Your task to perform on an android device: turn smart compose on in the gmail app Image 0: 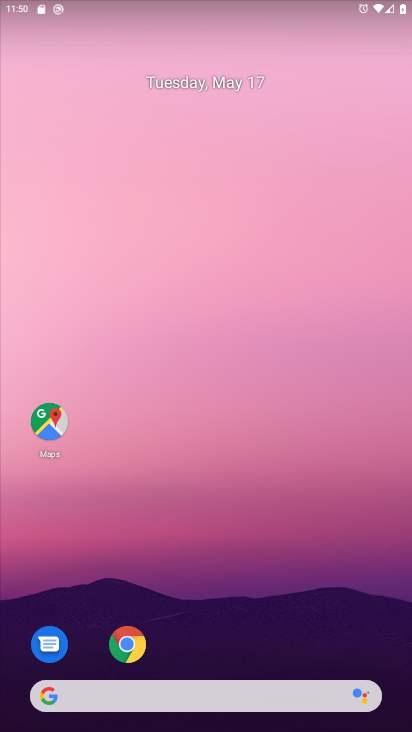
Step 0: drag from (213, 645) to (243, 29)
Your task to perform on an android device: turn smart compose on in the gmail app Image 1: 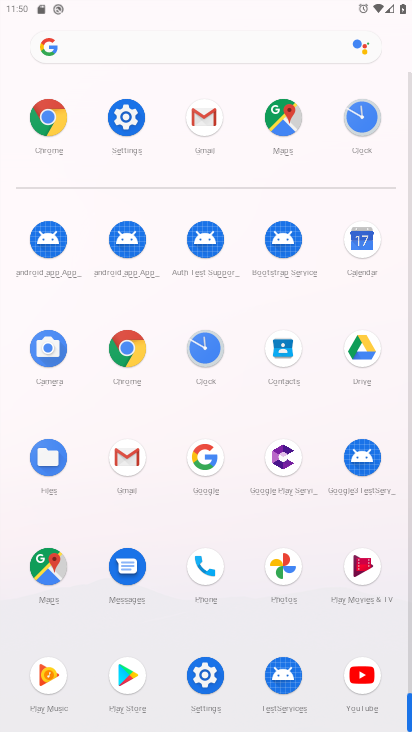
Step 1: click (122, 451)
Your task to perform on an android device: turn smart compose on in the gmail app Image 2: 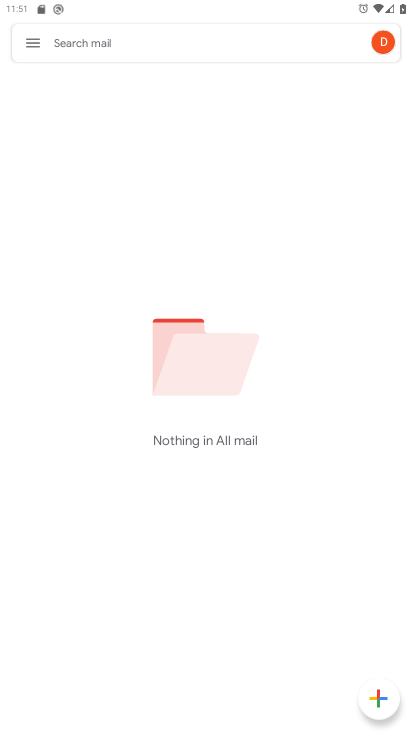
Step 2: press home button
Your task to perform on an android device: turn smart compose on in the gmail app Image 3: 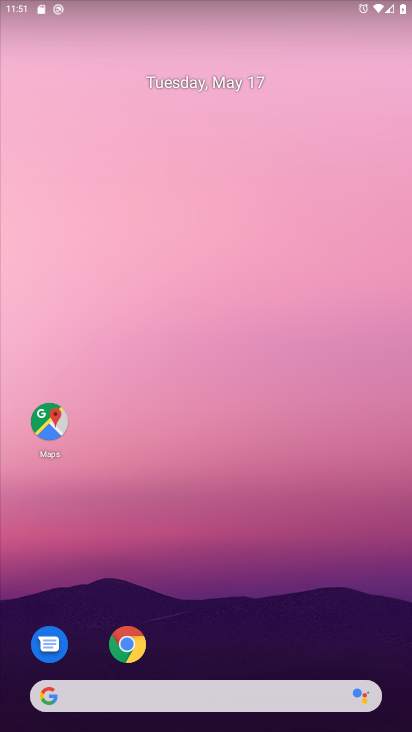
Step 3: drag from (217, 653) to (253, 74)
Your task to perform on an android device: turn smart compose on in the gmail app Image 4: 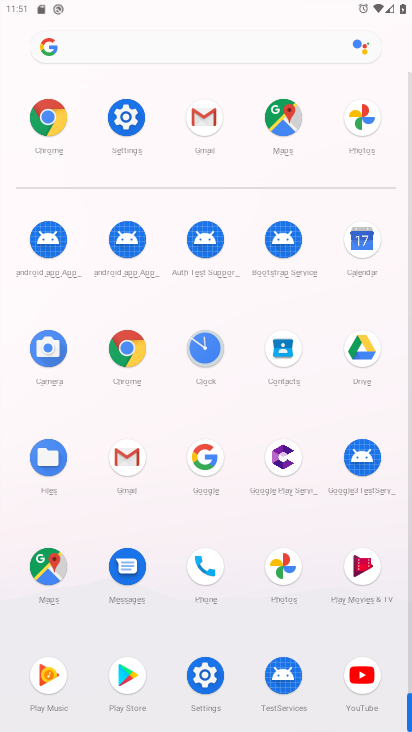
Step 4: click (122, 444)
Your task to perform on an android device: turn smart compose on in the gmail app Image 5: 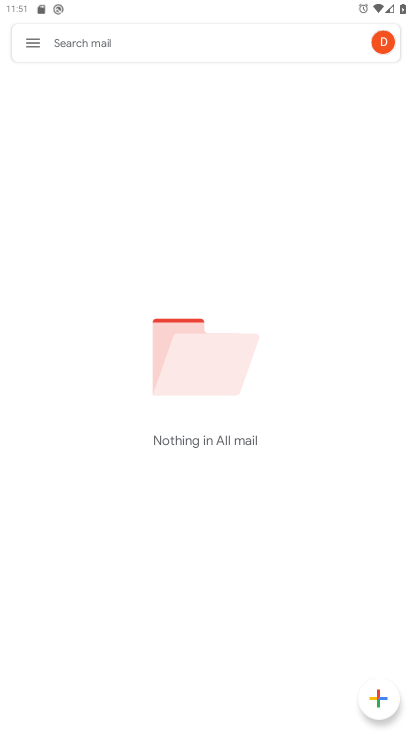
Step 5: click (33, 43)
Your task to perform on an android device: turn smart compose on in the gmail app Image 6: 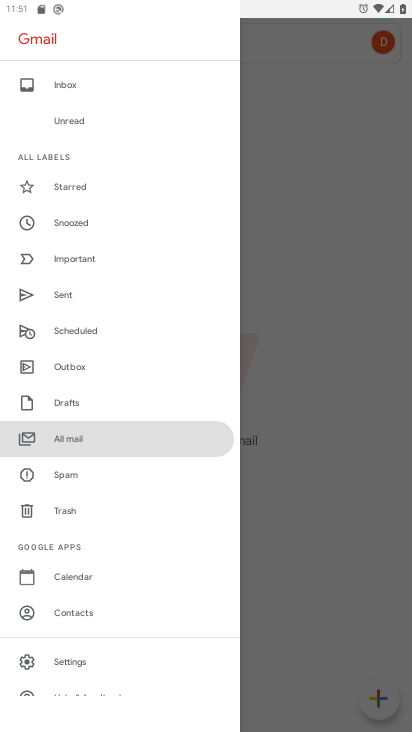
Step 6: click (90, 656)
Your task to perform on an android device: turn smart compose on in the gmail app Image 7: 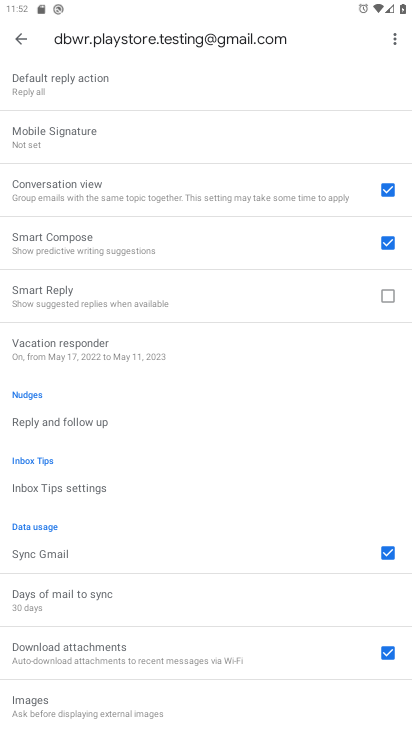
Step 7: drag from (208, 677) to (210, 505)
Your task to perform on an android device: turn smart compose on in the gmail app Image 8: 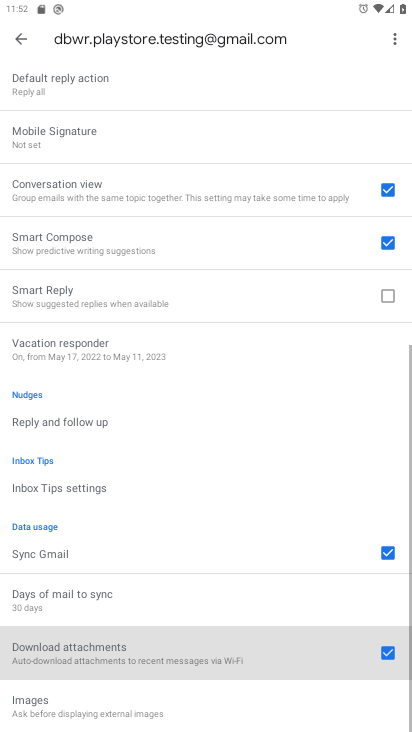
Step 8: click (210, 378)
Your task to perform on an android device: turn smart compose on in the gmail app Image 9: 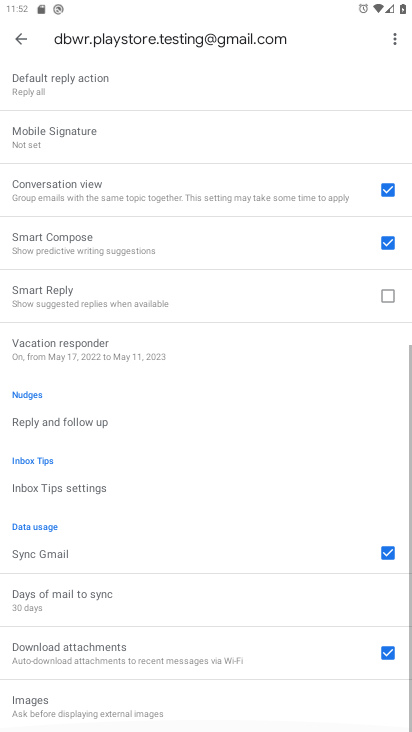
Step 9: click (207, 257)
Your task to perform on an android device: turn smart compose on in the gmail app Image 10: 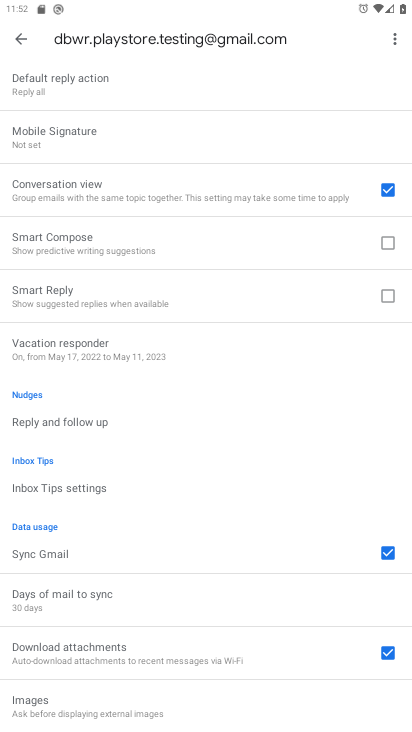
Step 10: click (386, 240)
Your task to perform on an android device: turn smart compose on in the gmail app Image 11: 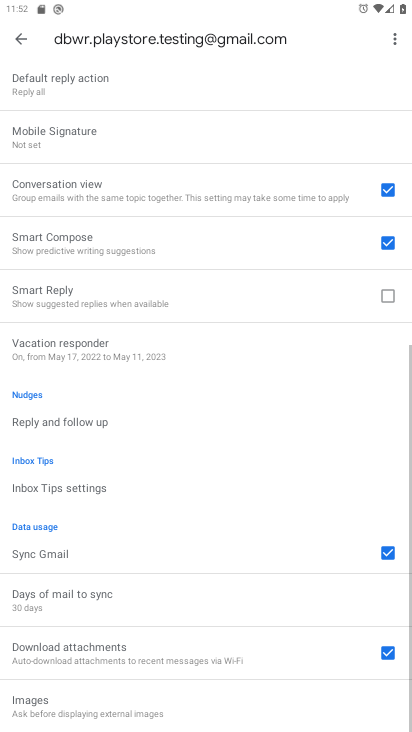
Step 11: task complete